Your task to perform on an android device: Show me popular games on the Play Store Image 0: 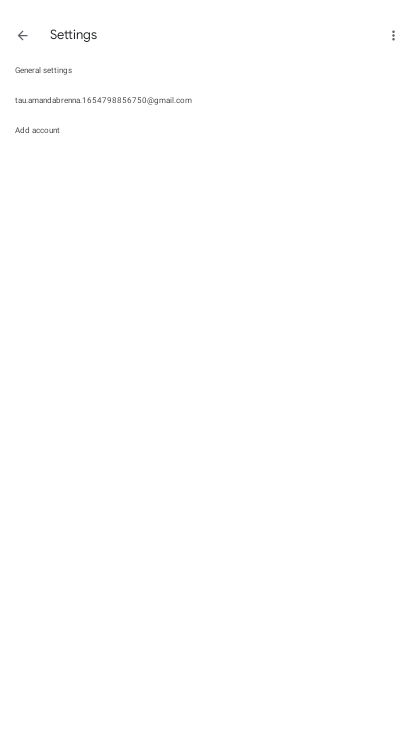
Step 0: press home button
Your task to perform on an android device: Show me popular games on the Play Store Image 1: 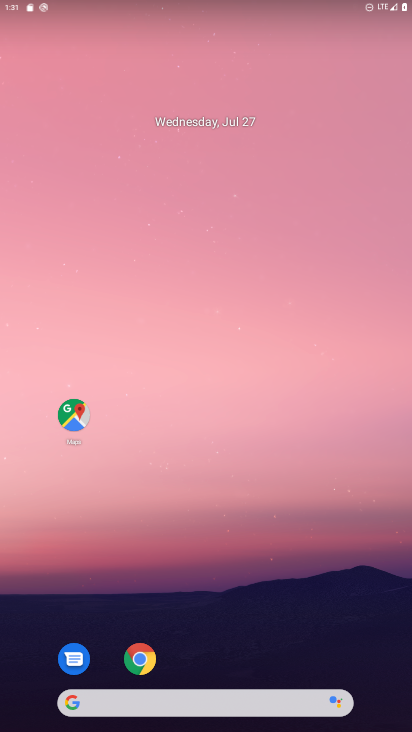
Step 1: drag from (238, 648) to (293, 430)
Your task to perform on an android device: Show me popular games on the Play Store Image 2: 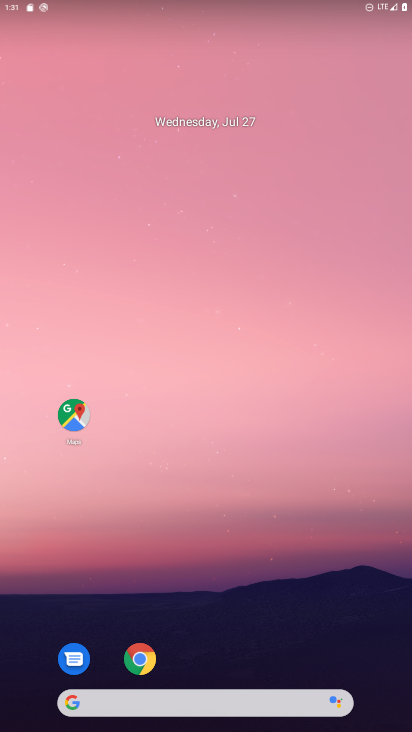
Step 2: drag from (204, 656) to (212, 252)
Your task to perform on an android device: Show me popular games on the Play Store Image 3: 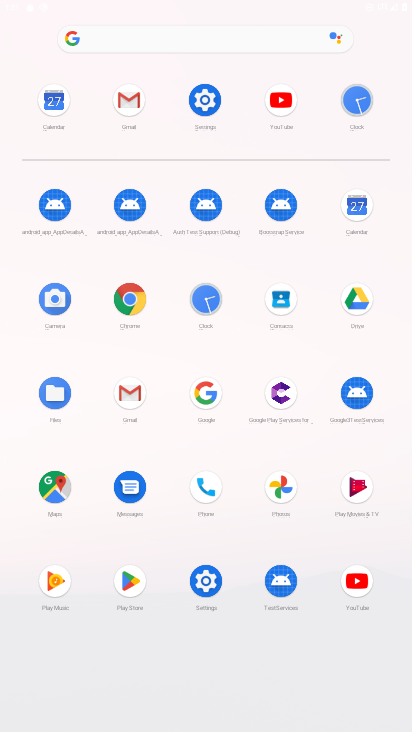
Step 3: click (120, 580)
Your task to perform on an android device: Show me popular games on the Play Store Image 4: 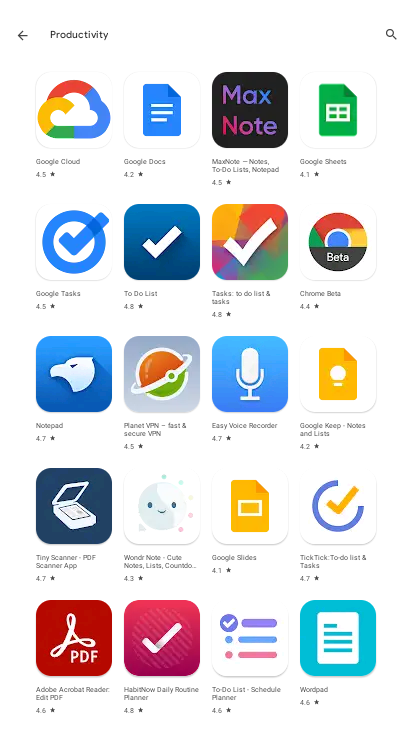
Step 4: click (18, 40)
Your task to perform on an android device: Show me popular games on the Play Store Image 5: 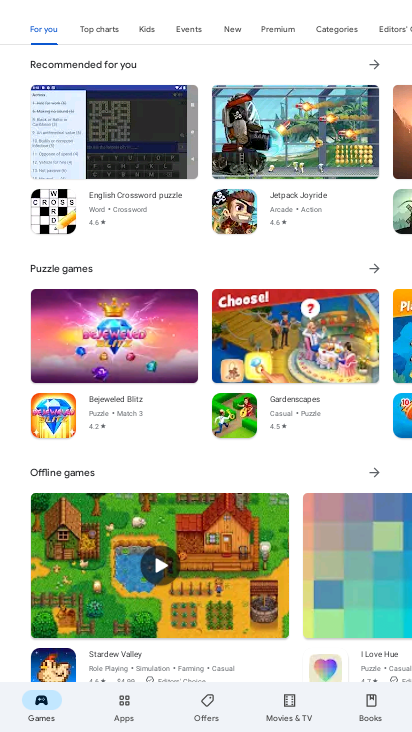
Step 5: click (311, 99)
Your task to perform on an android device: Show me popular games on the Play Store Image 6: 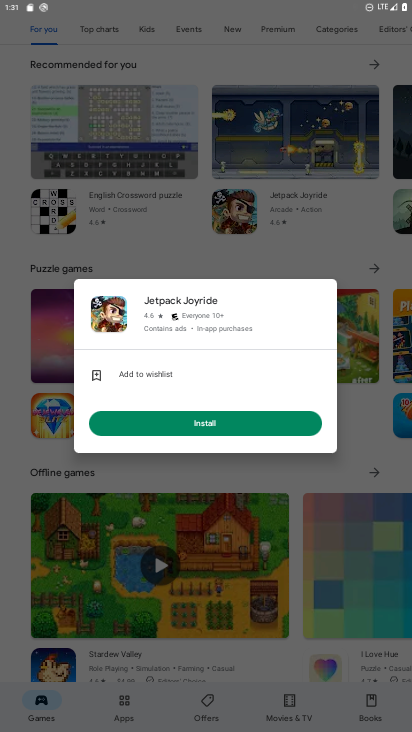
Step 6: click (403, 461)
Your task to perform on an android device: Show me popular games on the Play Store Image 7: 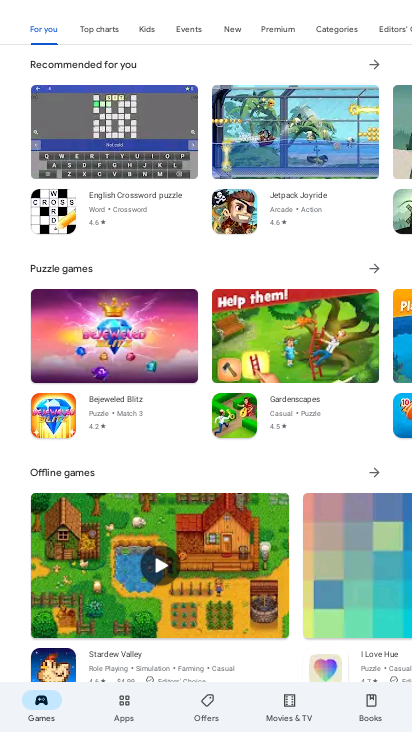
Step 7: drag from (205, 228) to (210, 186)
Your task to perform on an android device: Show me popular games on the Play Store Image 8: 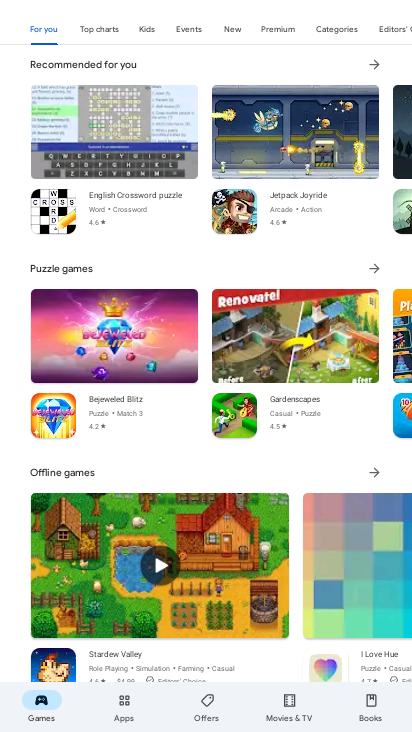
Step 8: click (208, 271)
Your task to perform on an android device: Show me popular games on the Play Store Image 9: 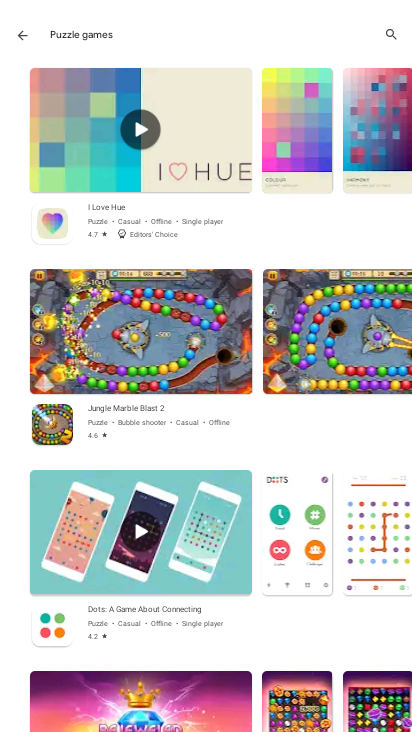
Step 9: click (24, 32)
Your task to perform on an android device: Show me popular games on the Play Store Image 10: 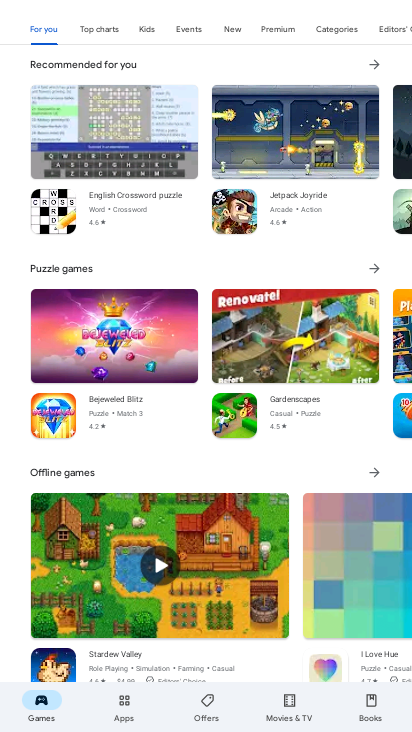
Step 10: drag from (11, 647) to (37, 290)
Your task to perform on an android device: Show me popular games on the Play Store Image 11: 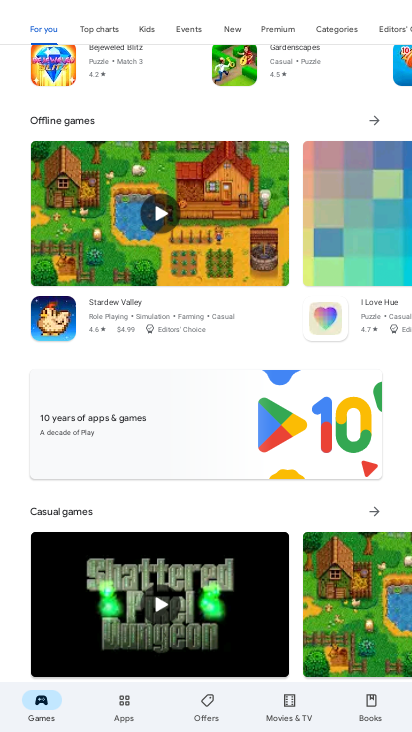
Step 11: drag from (17, 636) to (43, 287)
Your task to perform on an android device: Show me popular games on the Play Store Image 12: 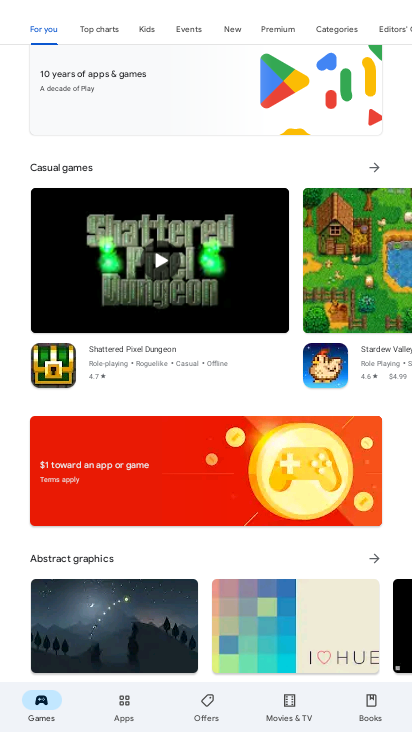
Step 12: drag from (6, 593) to (56, 230)
Your task to perform on an android device: Show me popular games on the Play Store Image 13: 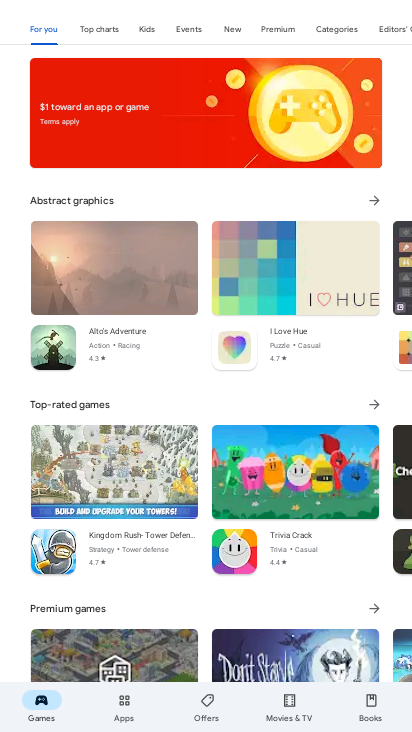
Step 13: drag from (8, 607) to (58, 189)
Your task to perform on an android device: Show me popular games on the Play Store Image 14: 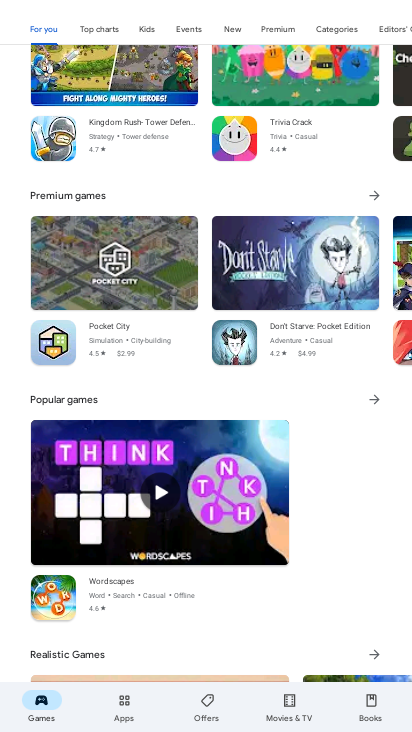
Step 14: click (373, 398)
Your task to perform on an android device: Show me popular games on the Play Store Image 15: 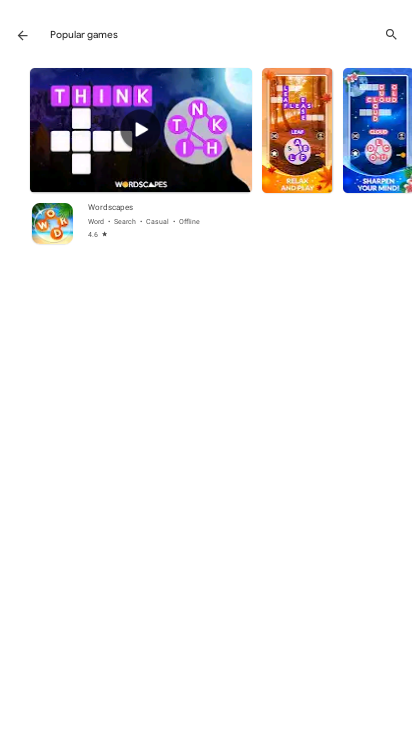
Step 15: click (217, 453)
Your task to perform on an android device: Show me popular games on the Play Store Image 16: 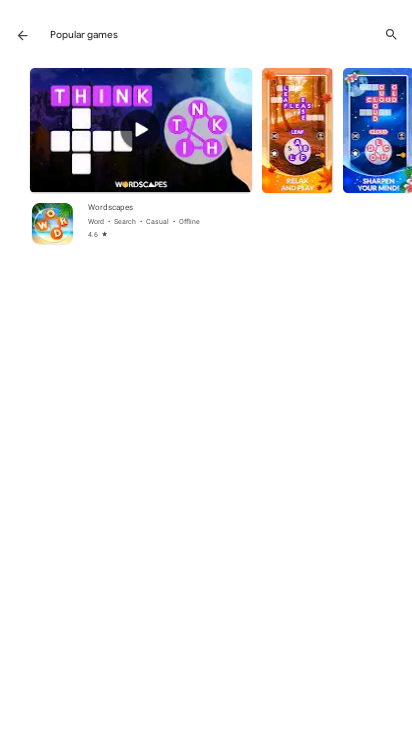
Step 16: task complete